Your task to perform on an android device: change the upload size in google photos Image 0: 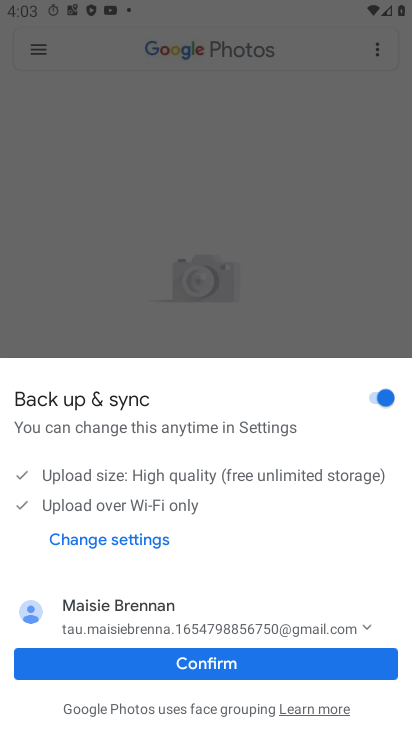
Step 0: press home button
Your task to perform on an android device: change the upload size in google photos Image 1: 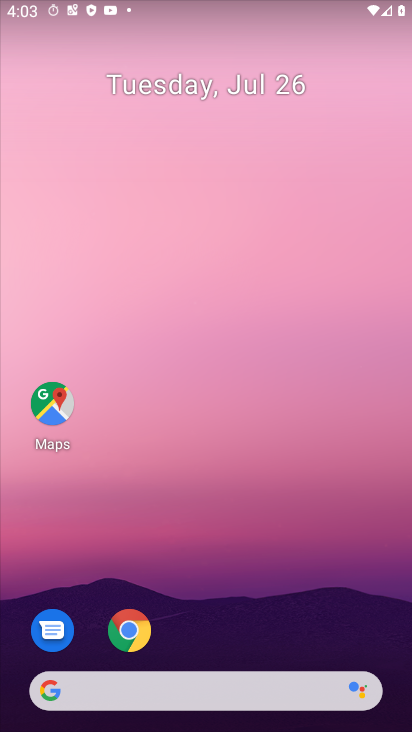
Step 1: drag from (254, 623) to (177, 119)
Your task to perform on an android device: change the upload size in google photos Image 2: 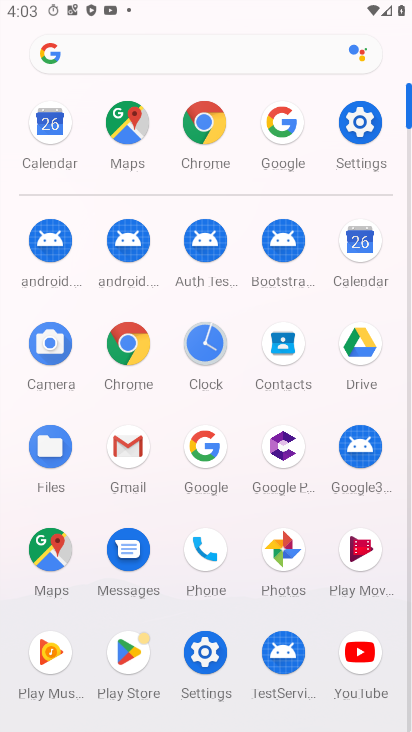
Step 2: click (287, 558)
Your task to perform on an android device: change the upload size in google photos Image 3: 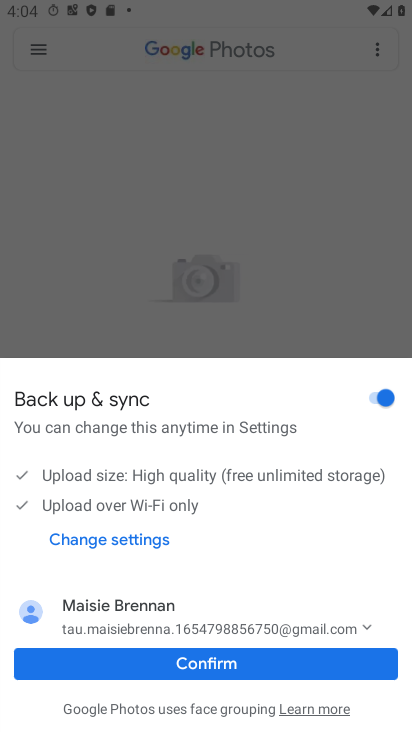
Step 3: click (294, 668)
Your task to perform on an android device: change the upload size in google photos Image 4: 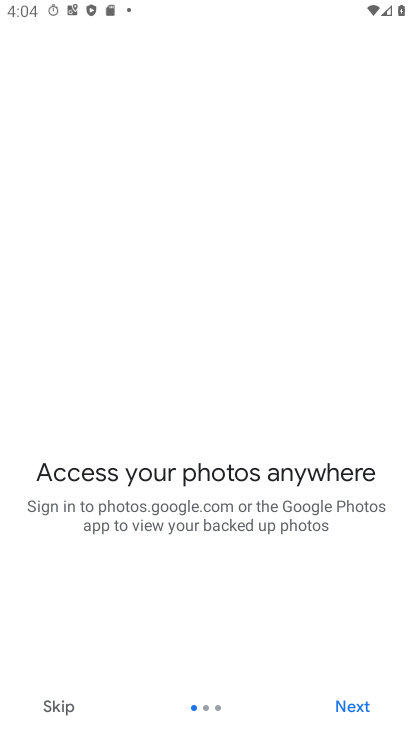
Step 4: click (340, 707)
Your task to perform on an android device: change the upload size in google photos Image 5: 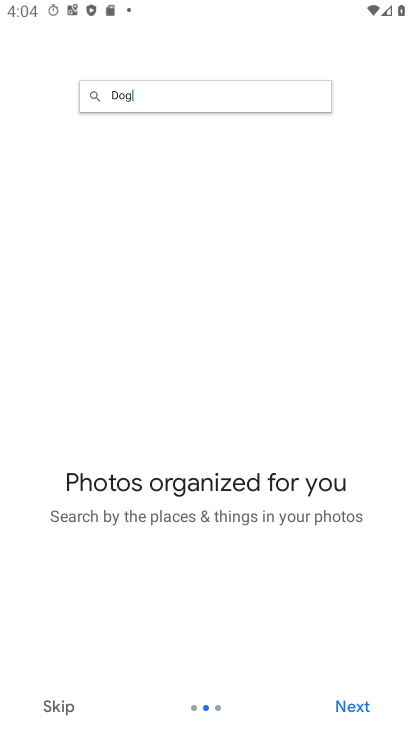
Step 5: click (340, 707)
Your task to perform on an android device: change the upload size in google photos Image 6: 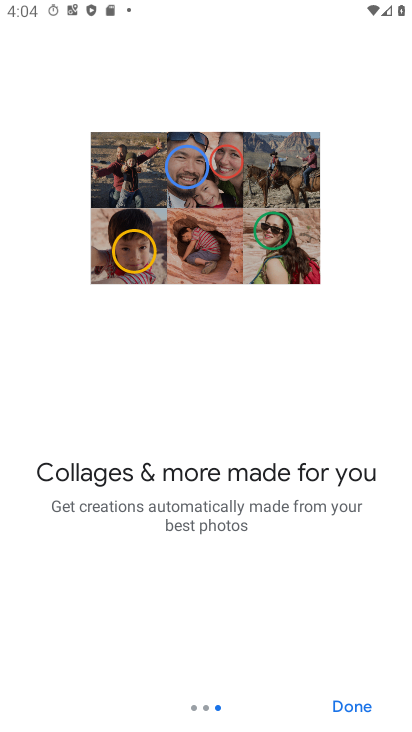
Step 6: click (340, 707)
Your task to perform on an android device: change the upload size in google photos Image 7: 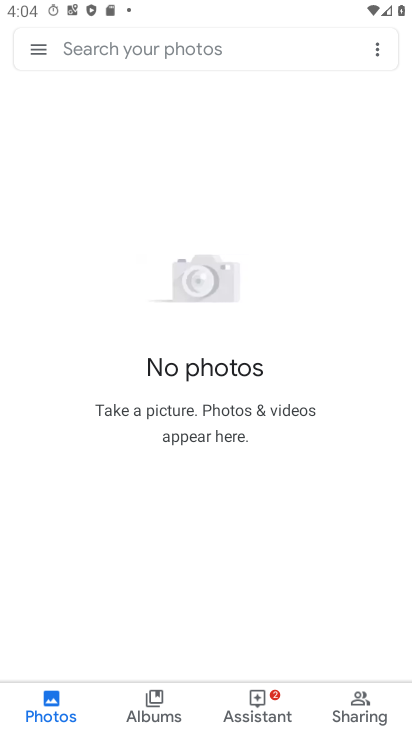
Step 7: click (42, 46)
Your task to perform on an android device: change the upload size in google photos Image 8: 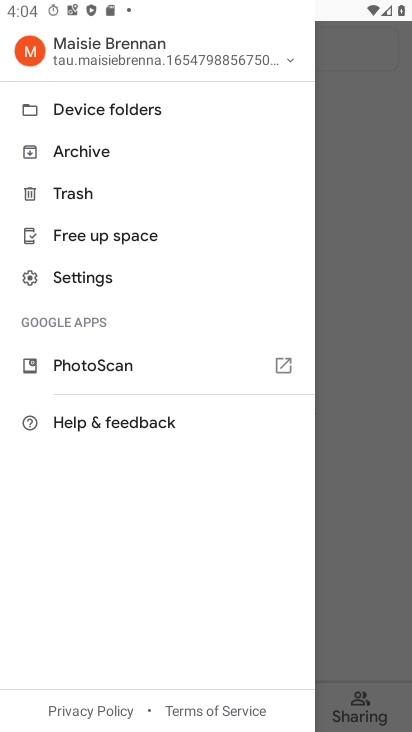
Step 8: click (99, 282)
Your task to perform on an android device: change the upload size in google photos Image 9: 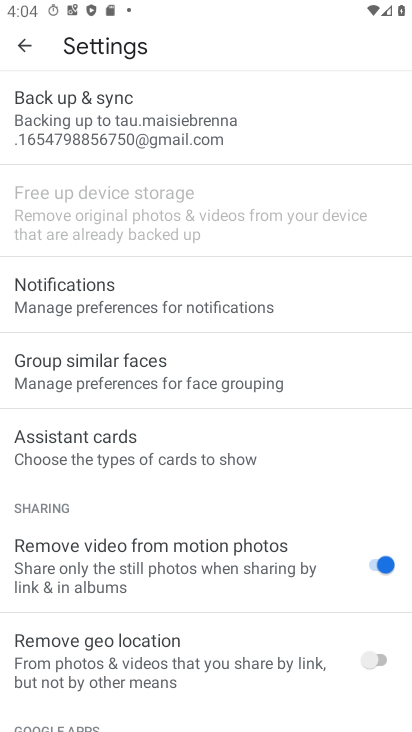
Step 9: click (207, 126)
Your task to perform on an android device: change the upload size in google photos Image 10: 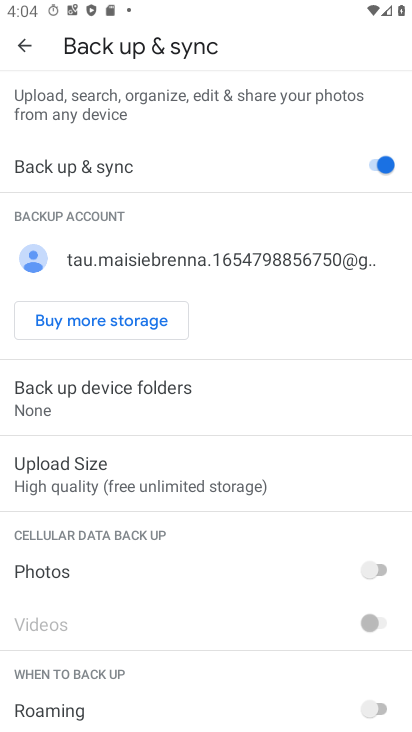
Step 10: click (227, 464)
Your task to perform on an android device: change the upload size in google photos Image 11: 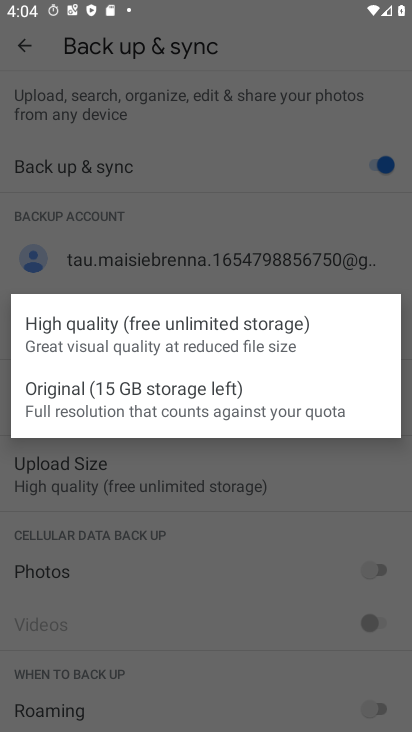
Step 11: click (243, 415)
Your task to perform on an android device: change the upload size in google photos Image 12: 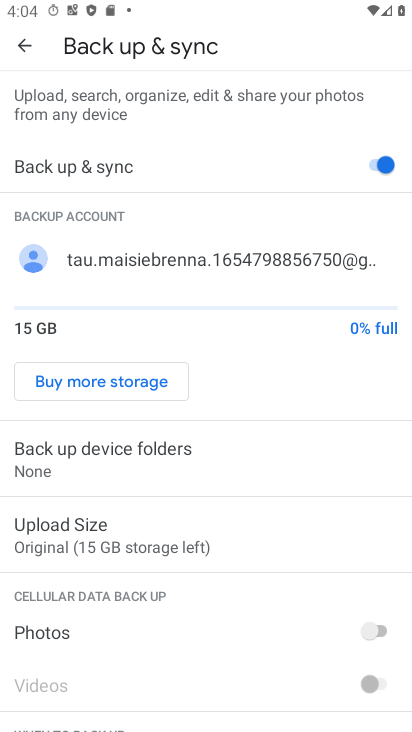
Step 12: task complete